Your task to perform on an android device: What's on my calendar today? Image 0: 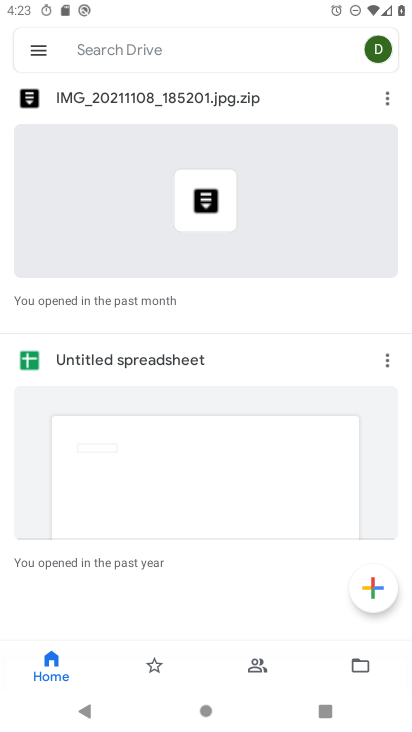
Step 0: press home button
Your task to perform on an android device: What's on my calendar today? Image 1: 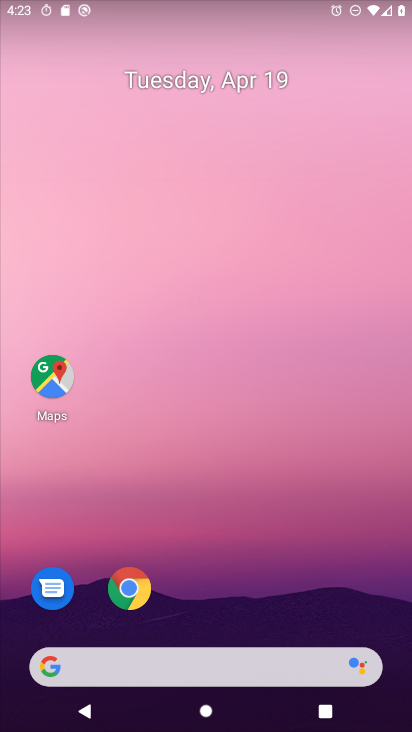
Step 1: drag from (199, 601) to (193, 94)
Your task to perform on an android device: What's on my calendar today? Image 2: 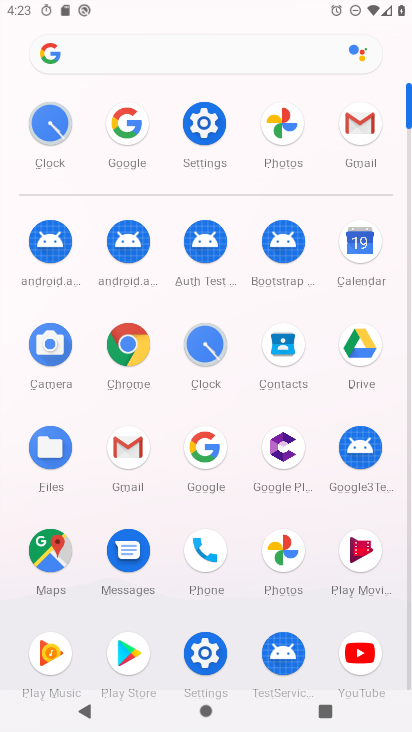
Step 2: click (358, 245)
Your task to perform on an android device: What's on my calendar today? Image 3: 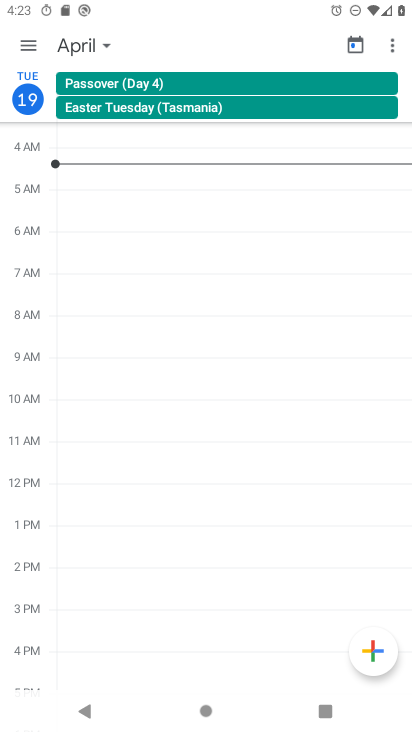
Step 3: task complete